Your task to perform on an android device: open the mobile data screen to see how much data has been used Image 0: 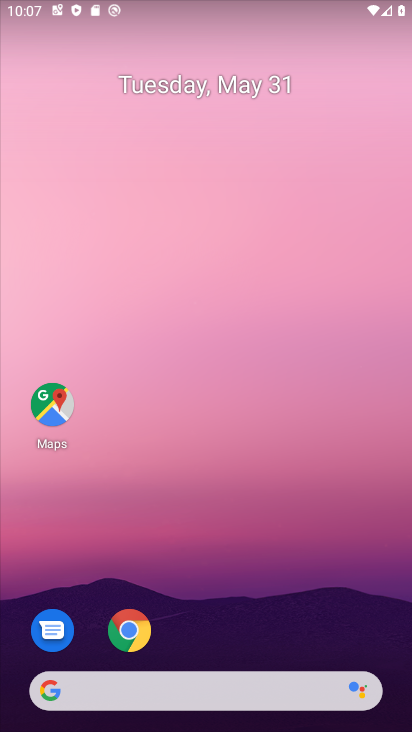
Step 0: drag from (250, 536) to (288, 164)
Your task to perform on an android device: open the mobile data screen to see how much data has been used Image 1: 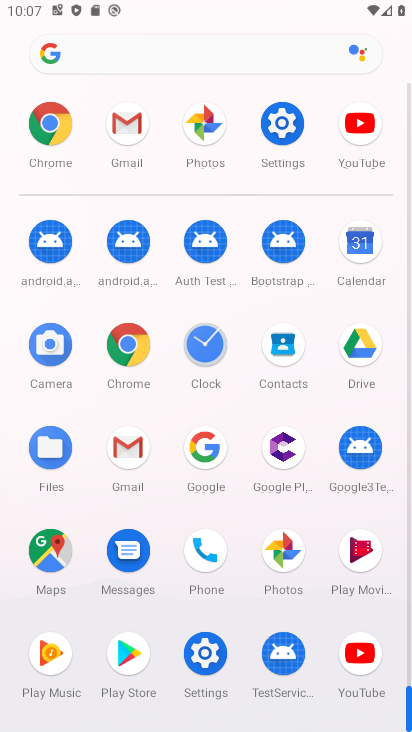
Step 1: click (288, 130)
Your task to perform on an android device: open the mobile data screen to see how much data has been used Image 2: 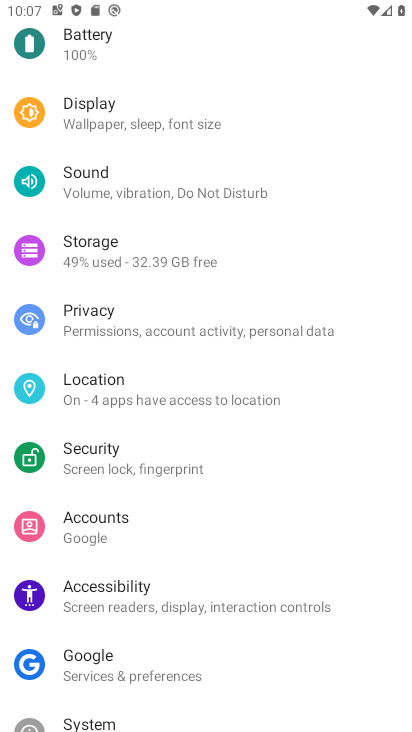
Step 2: drag from (235, 305) to (232, 689)
Your task to perform on an android device: open the mobile data screen to see how much data has been used Image 3: 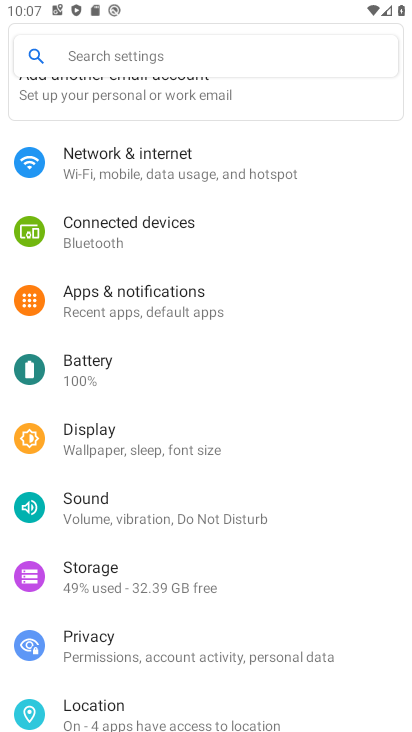
Step 3: click (182, 175)
Your task to perform on an android device: open the mobile data screen to see how much data has been used Image 4: 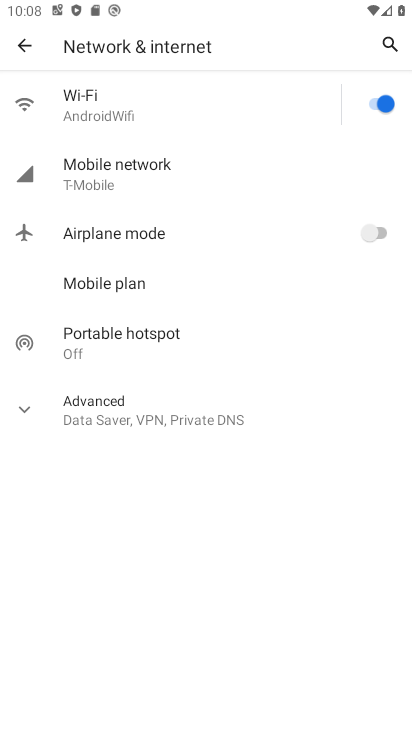
Step 4: click (162, 168)
Your task to perform on an android device: open the mobile data screen to see how much data has been used Image 5: 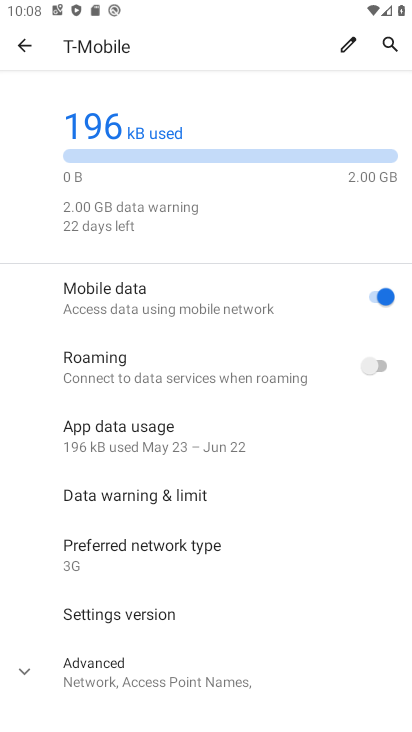
Step 5: click (162, 438)
Your task to perform on an android device: open the mobile data screen to see how much data has been used Image 6: 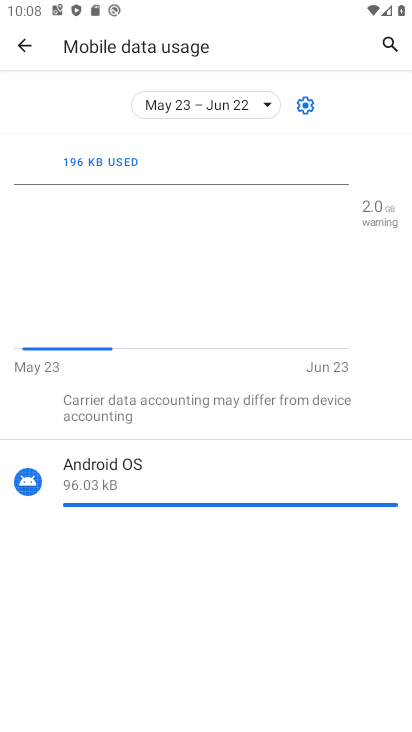
Step 6: task complete